Your task to perform on an android device: Show me productivity apps on the Play Store Image 0: 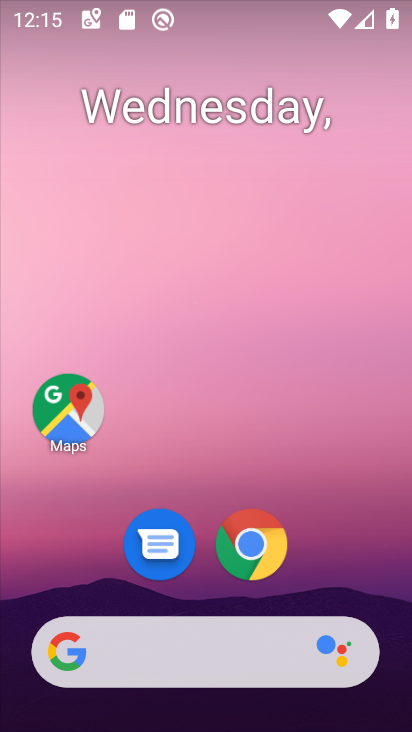
Step 0: drag from (146, 432) to (162, 104)
Your task to perform on an android device: Show me productivity apps on the Play Store Image 1: 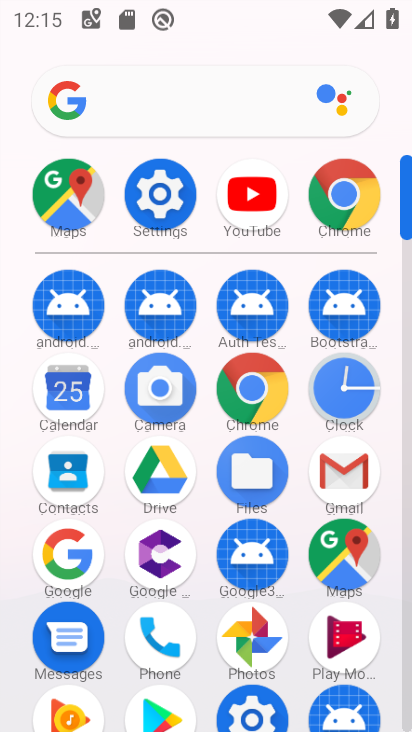
Step 1: drag from (214, 258) to (195, 115)
Your task to perform on an android device: Show me productivity apps on the Play Store Image 2: 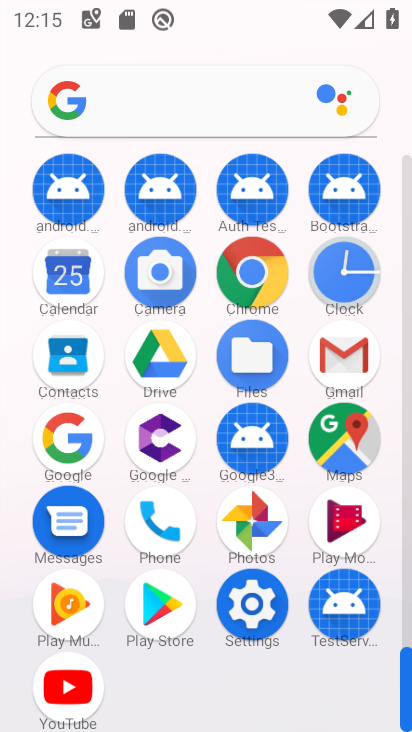
Step 2: click (167, 608)
Your task to perform on an android device: Show me productivity apps on the Play Store Image 3: 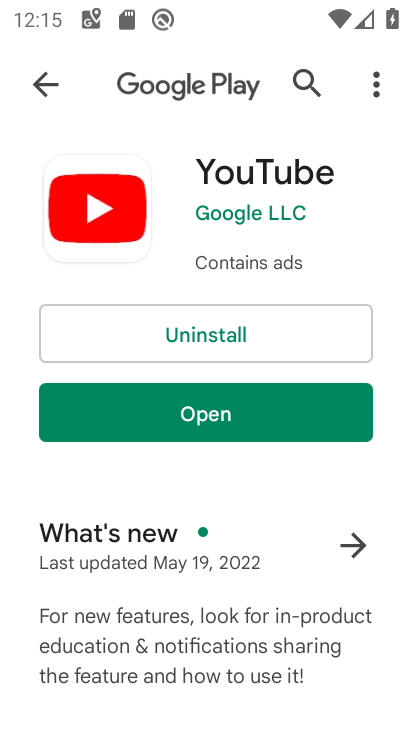
Step 3: click (55, 86)
Your task to perform on an android device: Show me productivity apps on the Play Store Image 4: 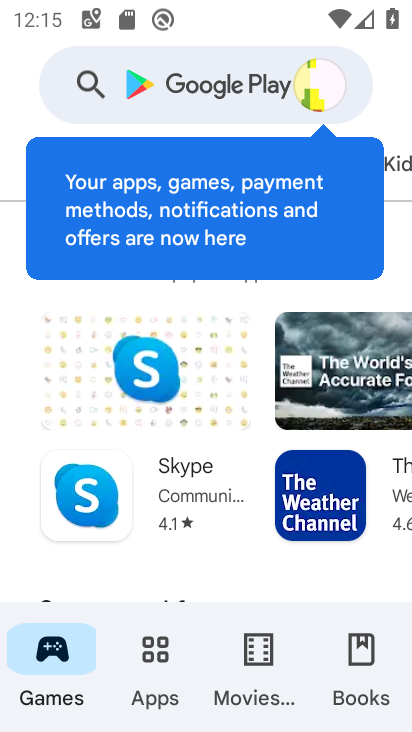
Step 4: click (222, 91)
Your task to perform on an android device: Show me productivity apps on the Play Store Image 5: 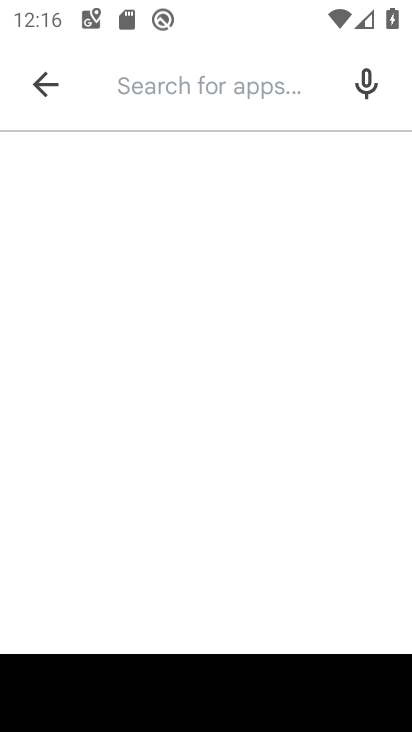
Step 5: type "productivity apps"
Your task to perform on an android device: Show me productivity apps on the Play Store Image 6: 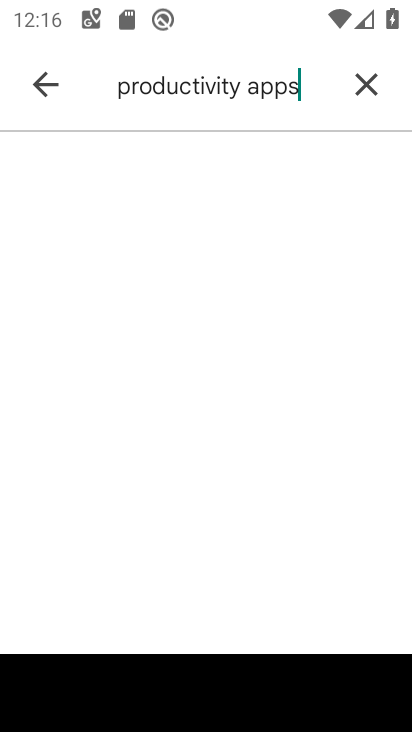
Step 6: type ""
Your task to perform on an android device: Show me productivity apps on the Play Store Image 7: 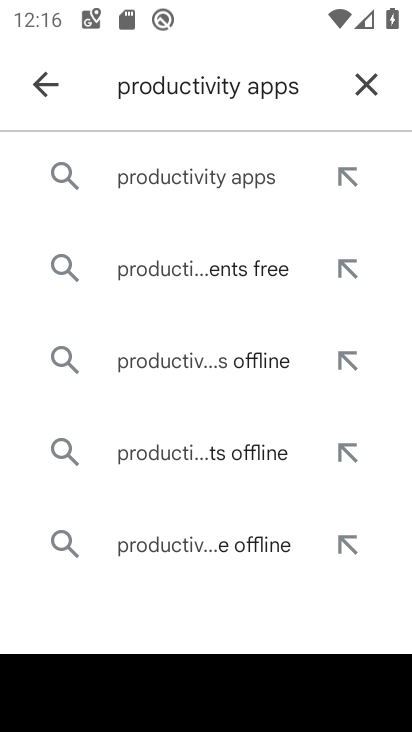
Step 7: click (129, 176)
Your task to perform on an android device: Show me productivity apps on the Play Store Image 8: 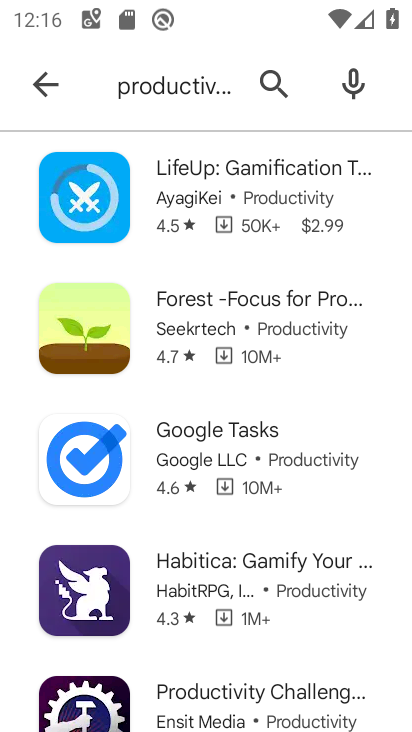
Step 8: task complete